Your task to perform on an android device: turn on location history Image 0: 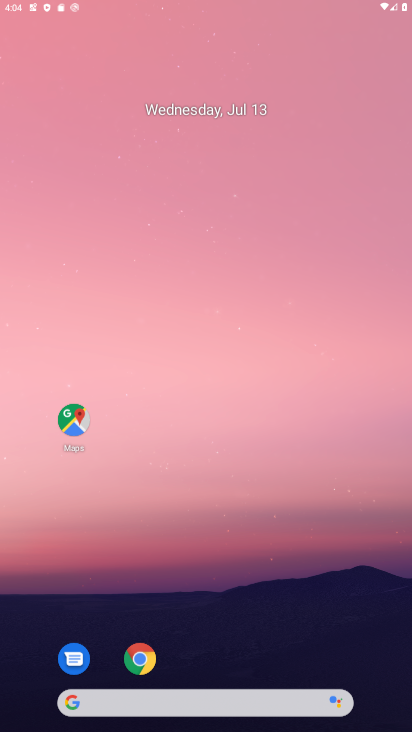
Step 0: press home button
Your task to perform on an android device: turn on location history Image 1: 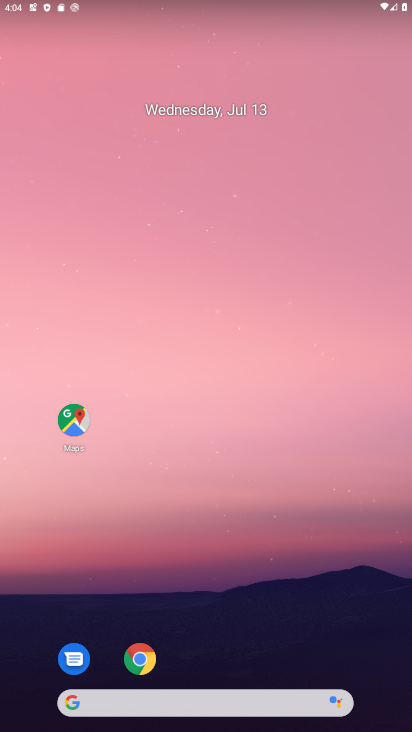
Step 1: drag from (218, 672) to (244, 38)
Your task to perform on an android device: turn on location history Image 2: 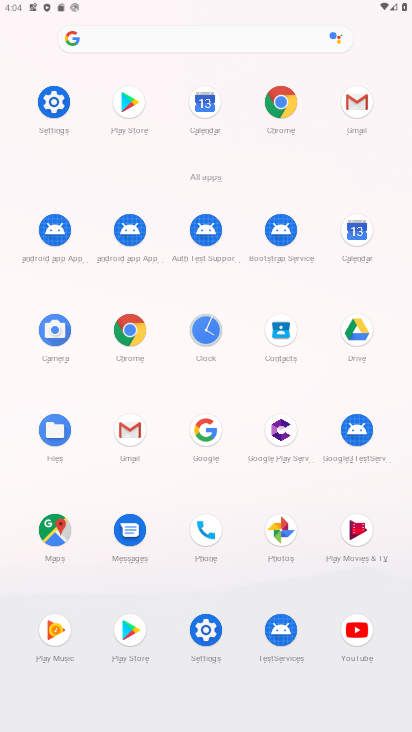
Step 2: click (52, 95)
Your task to perform on an android device: turn on location history Image 3: 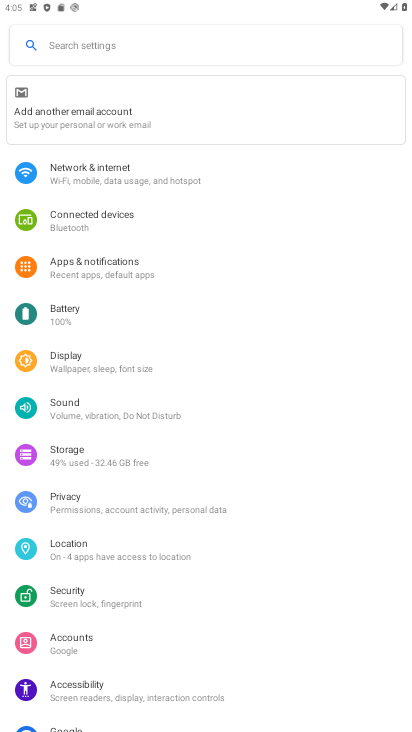
Step 3: click (106, 541)
Your task to perform on an android device: turn on location history Image 4: 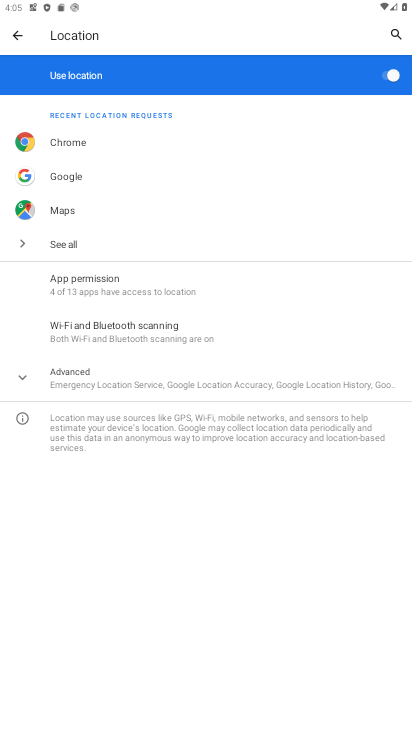
Step 4: click (25, 373)
Your task to perform on an android device: turn on location history Image 5: 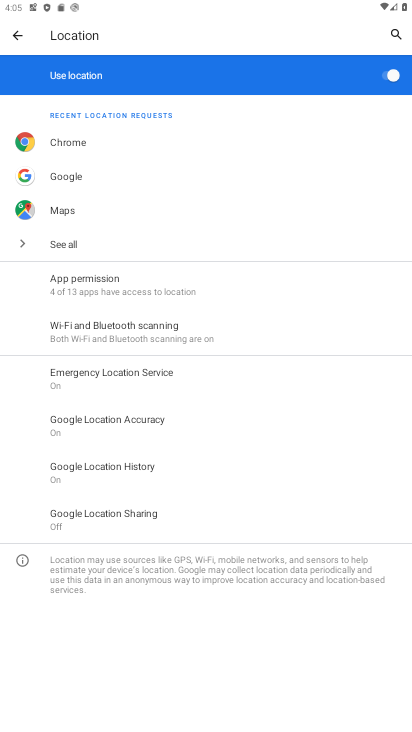
Step 5: click (112, 468)
Your task to perform on an android device: turn on location history Image 6: 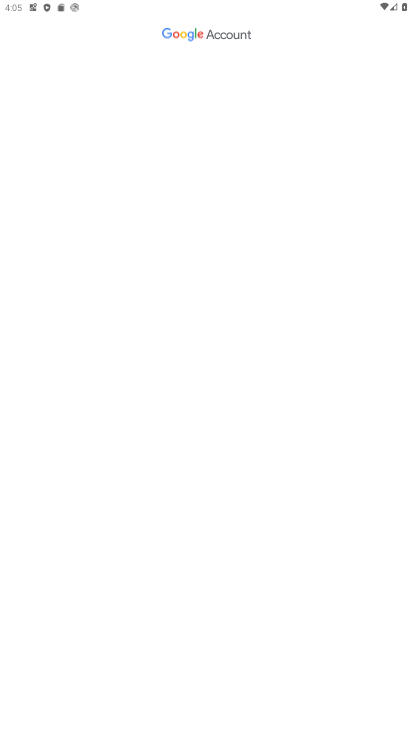
Step 6: task complete